Your task to perform on an android device: delete a single message in the gmail app Image 0: 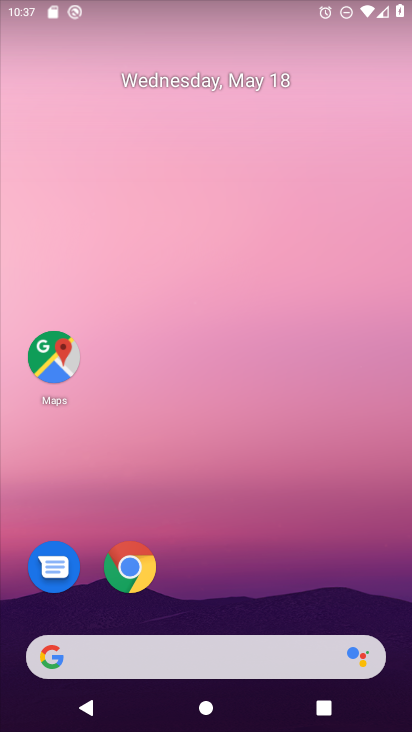
Step 0: drag from (262, 677) to (203, 267)
Your task to perform on an android device: delete a single message in the gmail app Image 1: 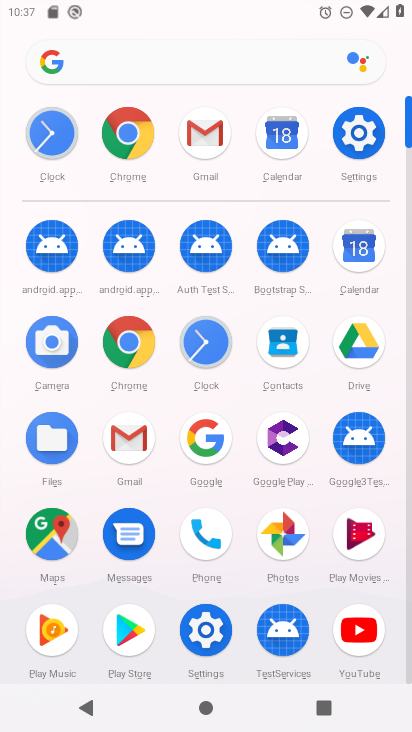
Step 1: click (141, 436)
Your task to perform on an android device: delete a single message in the gmail app Image 2: 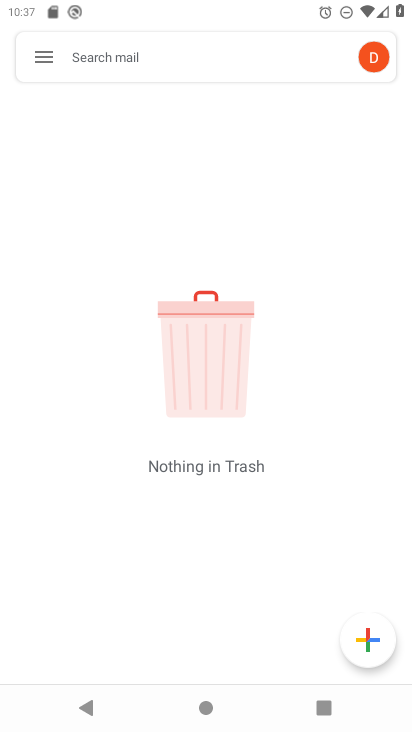
Step 2: task complete